Your task to perform on an android device: Clear the shopping cart on walmart. Add "usb-a" to the cart on walmart, then select checkout. Image 0: 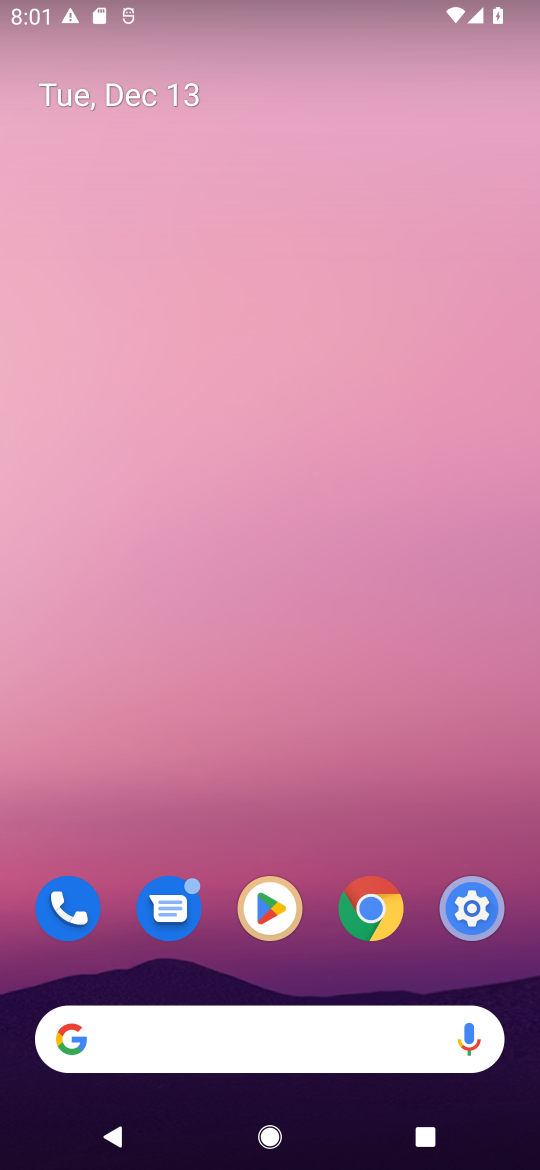
Step 0: press home button
Your task to perform on an android device: Clear the shopping cart on walmart. Add "usb-a" to the cart on walmart, then select checkout. Image 1: 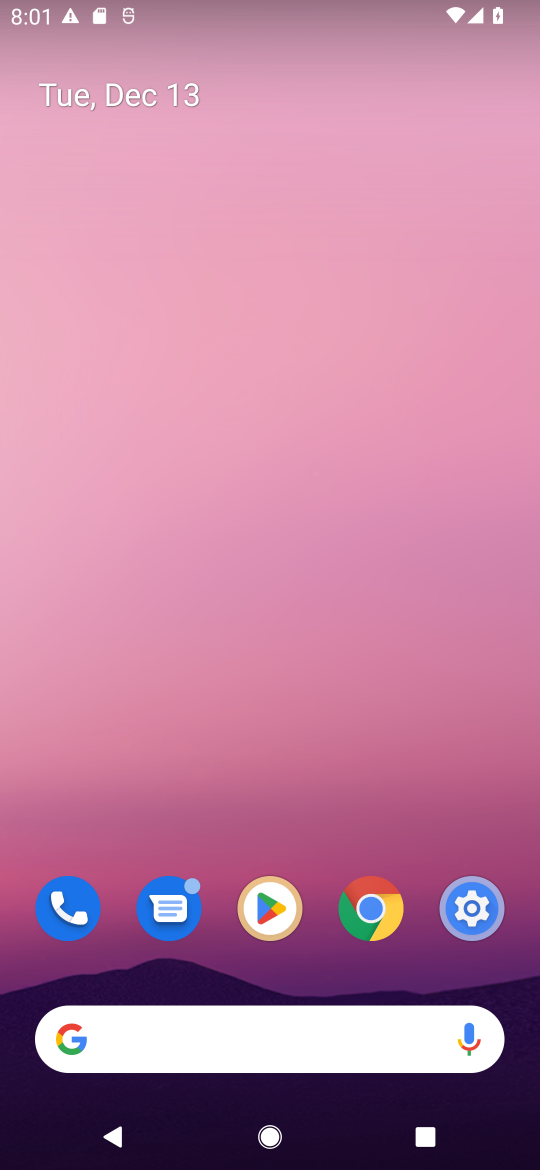
Step 1: click (107, 1026)
Your task to perform on an android device: Clear the shopping cart on walmart. Add "usb-a" to the cart on walmart, then select checkout. Image 2: 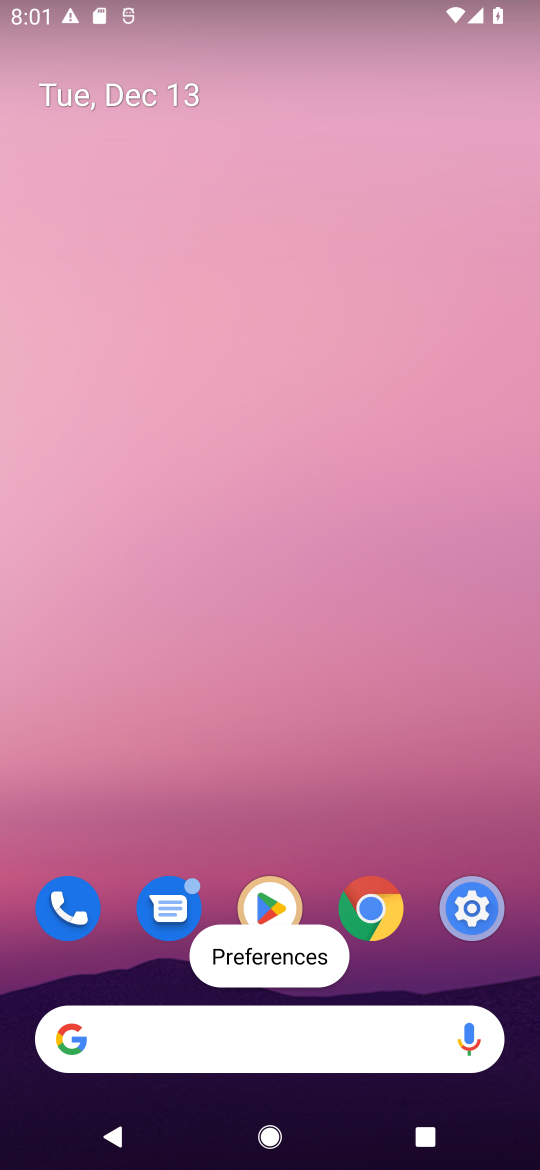
Step 2: click (119, 1027)
Your task to perform on an android device: Clear the shopping cart on walmart. Add "usb-a" to the cart on walmart, then select checkout. Image 3: 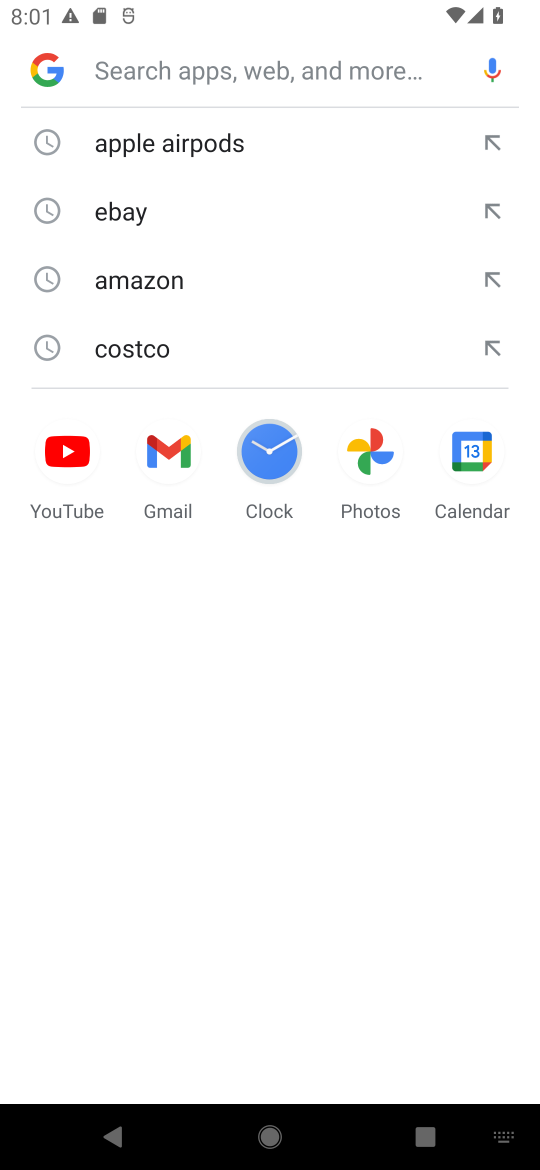
Step 3: type "walmart"
Your task to perform on an android device: Clear the shopping cart on walmart. Add "usb-a" to the cart on walmart, then select checkout. Image 4: 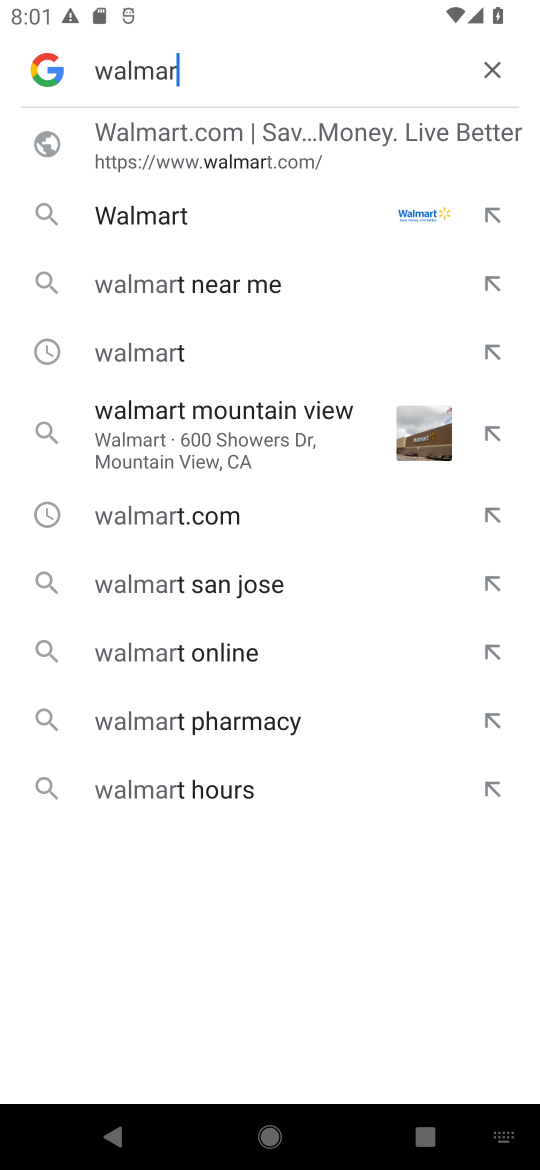
Step 4: press enter
Your task to perform on an android device: Clear the shopping cart on walmart. Add "usb-a" to the cart on walmart, then select checkout. Image 5: 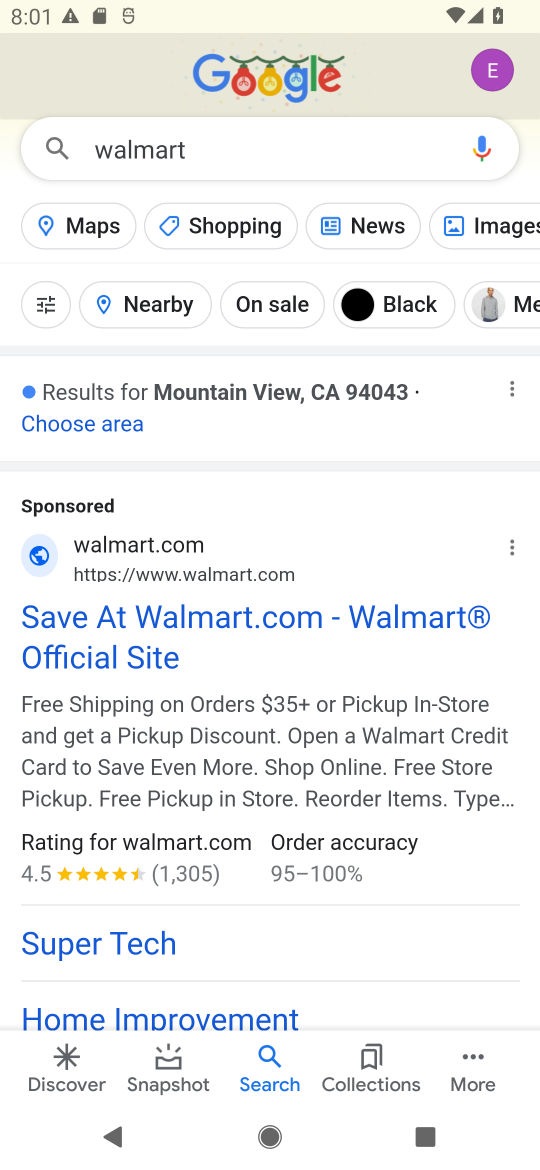
Step 5: click (97, 628)
Your task to perform on an android device: Clear the shopping cart on walmart. Add "usb-a" to the cart on walmart, then select checkout. Image 6: 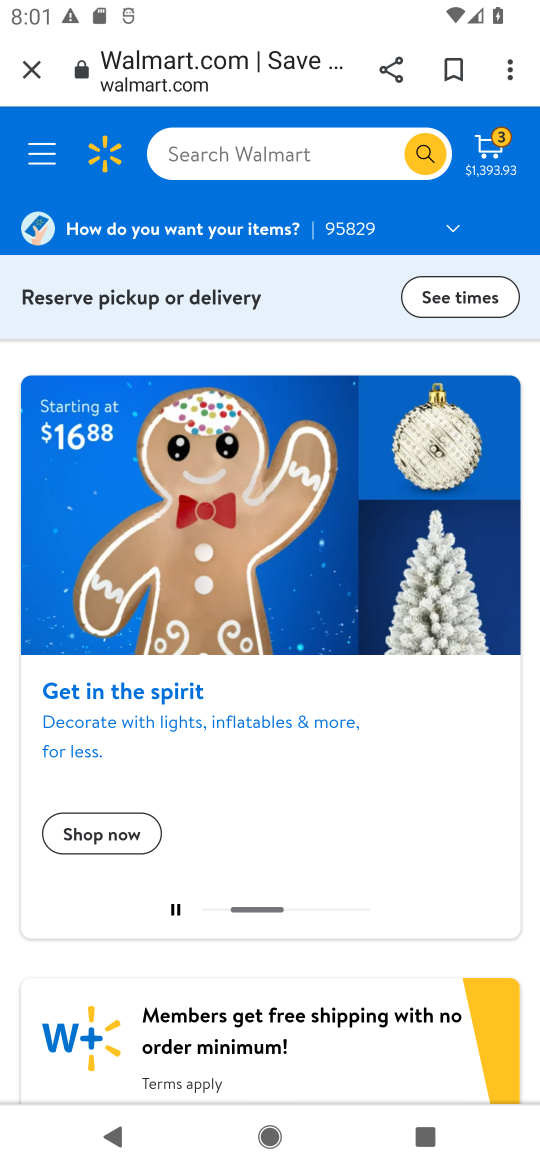
Step 6: click (482, 142)
Your task to perform on an android device: Clear the shopping cart on walmart. Add "usb-a" to the cart on walmart, then select checkout. Image 7: 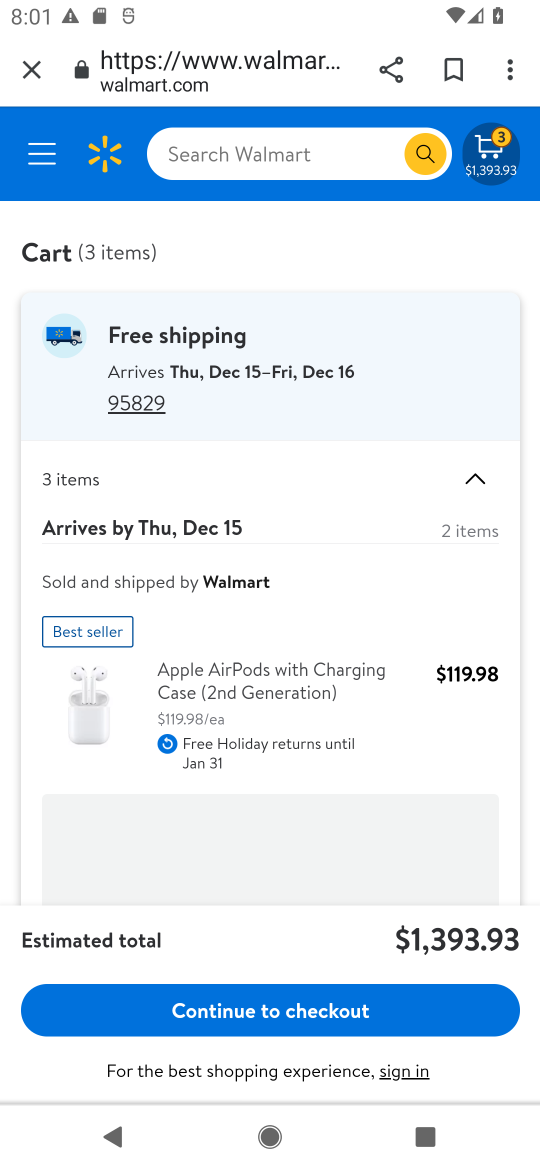
Step 7: drag from (302, 824) to (356, 353)
Your task to perform on an android device: Clear the shopping cart on walmart. Add "usb-a" to the cart on walmart, then select checkout. Image 8: 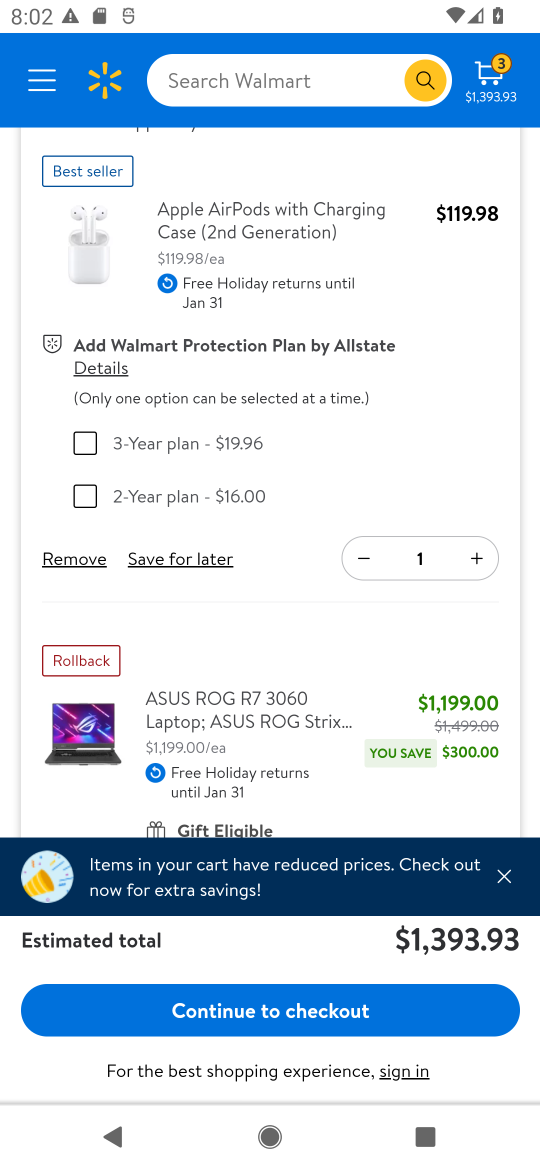
Step 8: click (54, 559)
Your task to perform on an android device: Clear the shopping cart on walmart. Add "usb-a" to the cart on walmart, then select checkout. Image 9: 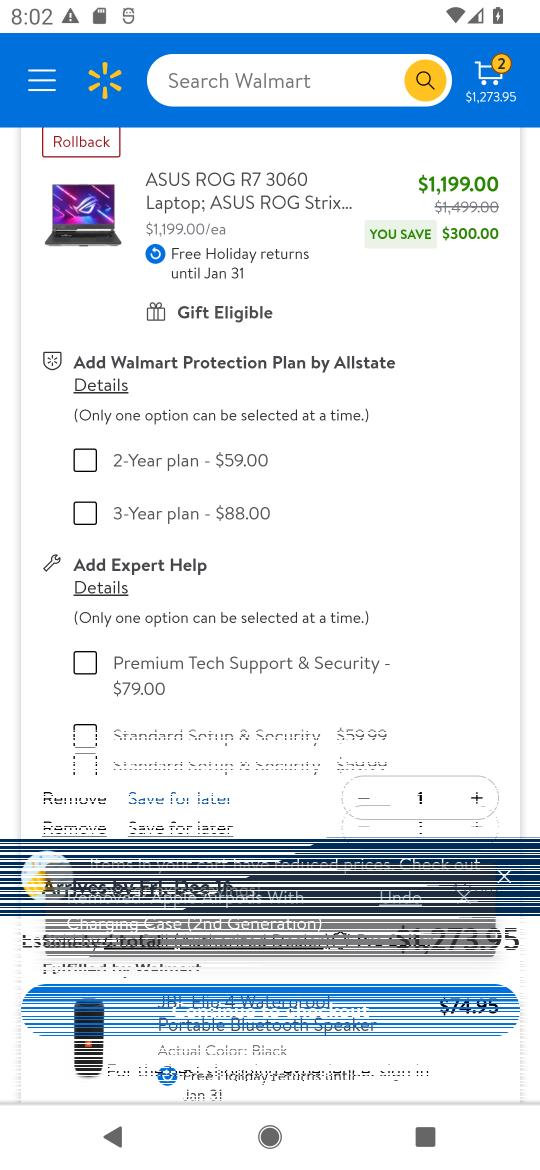
Step 9: drag from (178, 645) to (208, 258)
Your task to perform on an android device: Clear the shopping cart on walmart. Add "usb-a" to the cart on walmart, then select checkout. Image 10: 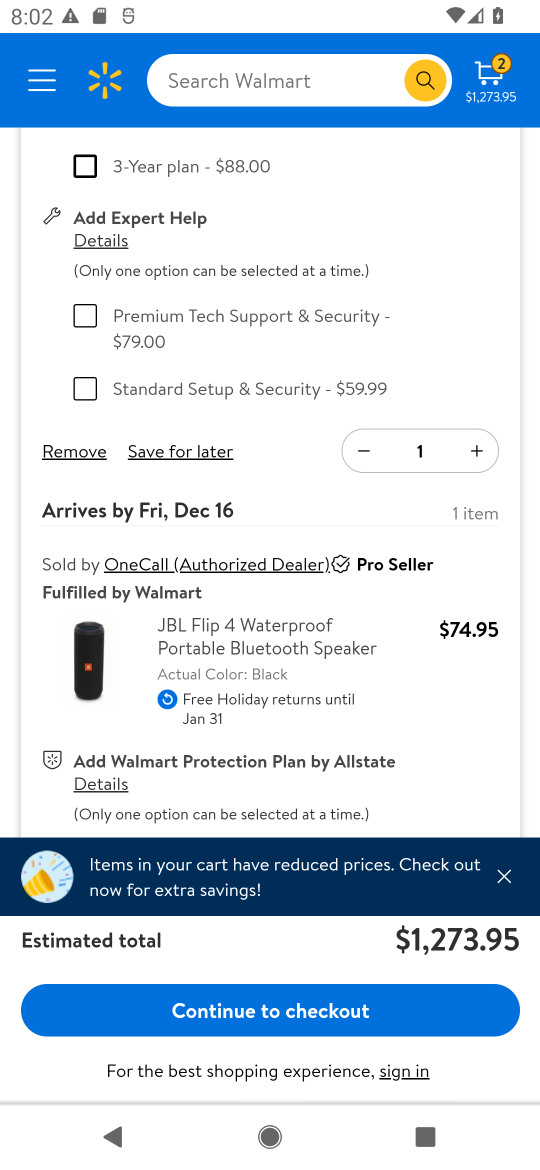
Step 10: click (64, 448)
Your task to perform on an android device: Clear the shopping cart on walmart. Add "usb-a" to the cart on walmart, then select checkout. Image 11: 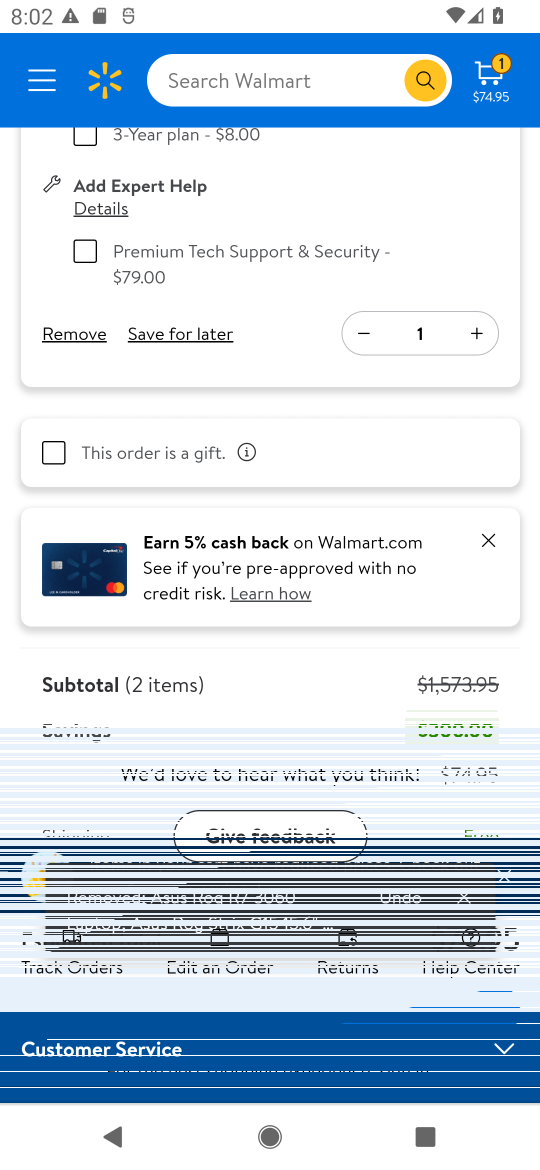
Step 11: click (68, 333)
Your task to perform on an android device: Clear the shopping cart on walmart. Add "usb-a" to the cart on walmart, then select checkout. Image 12: 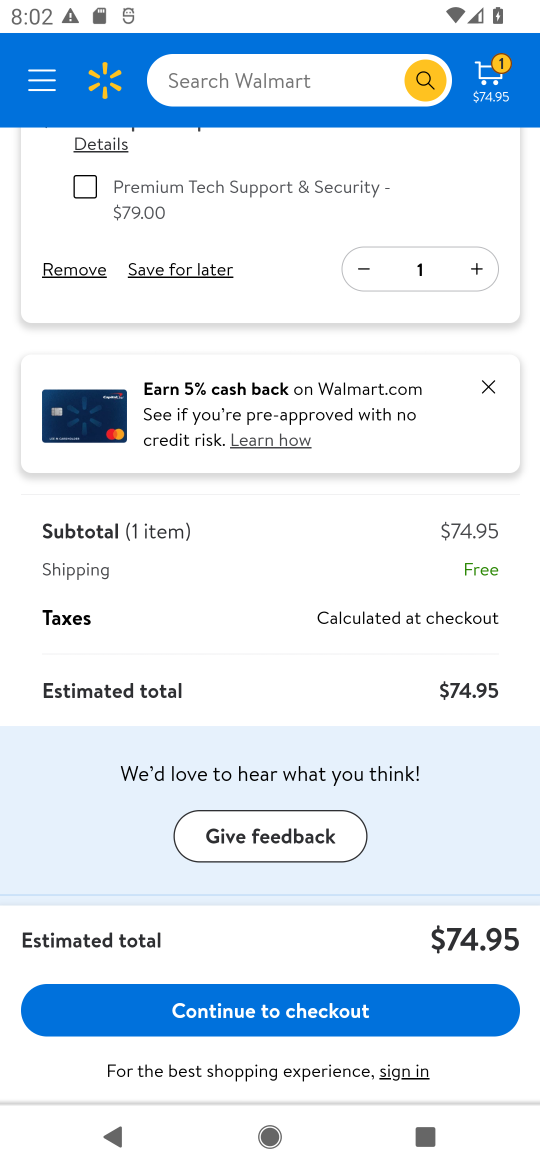
Step 12: click (65, 269)
Your task to perform on an android device: Clear the shopping cart on walmart. Add "usb-a" to the cart on walmart, then select checkout. Image 13: 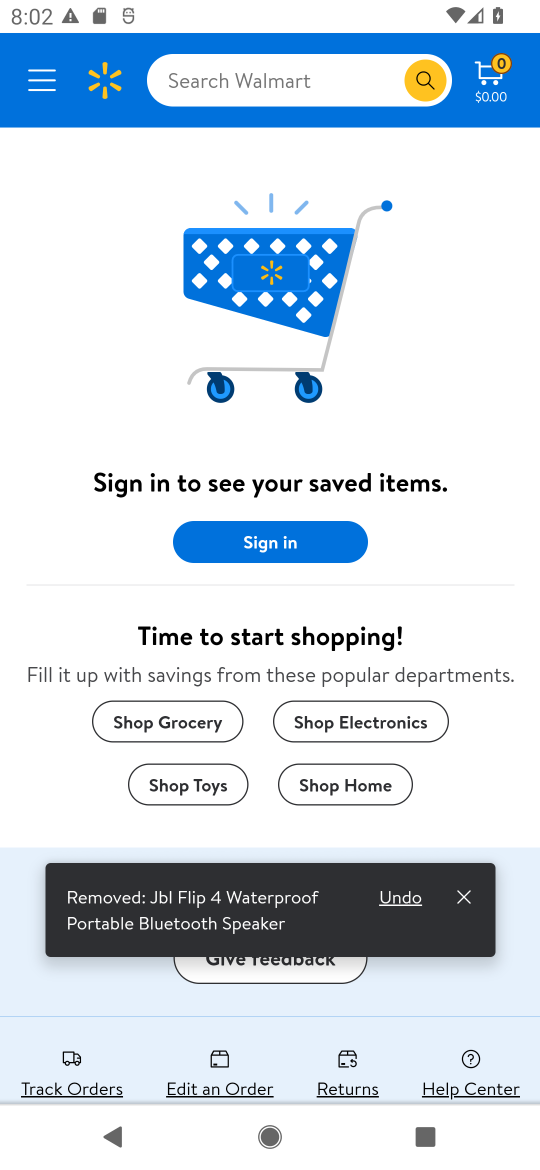
Step 13: click (190, 81)
Your task to perform on an android device: Clear the shopping cart on walmart. Add "usb-a" to the cart on walmart, then select checkout. Image 14: 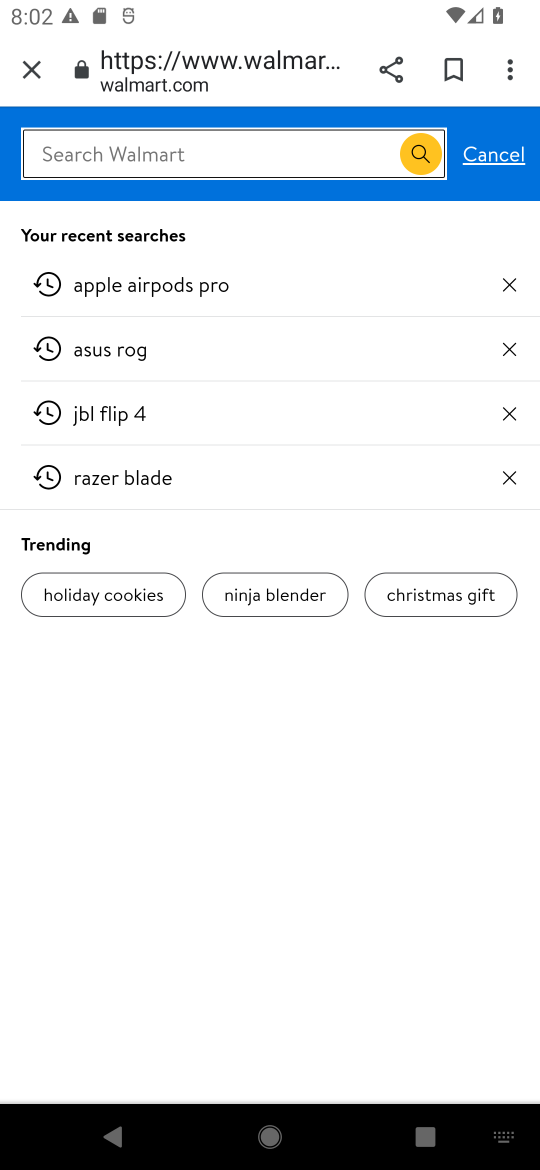
Step 14: type "usb-a"
Your task to perform on an android device: Clear the shopping cart on walmart. Add "usb-a" to the cart on walmart, then select checkout. Image 15: 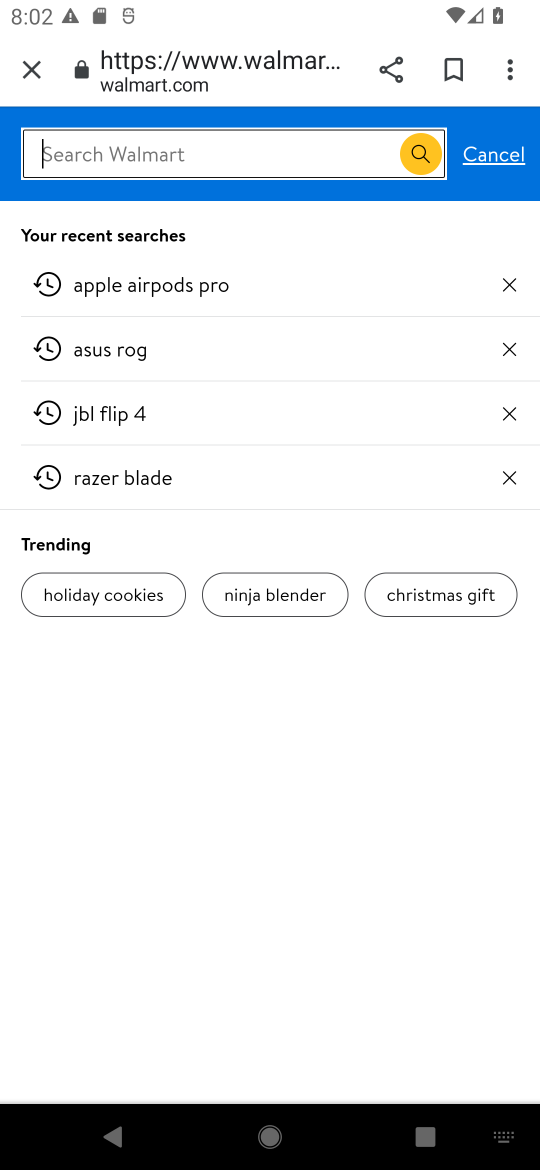
Step 15: press enter
Your task to perform on an android device: Clear the shopping cart on walmart. Add "usb-a" to the cart on walmart, then select checkout. Image 16: 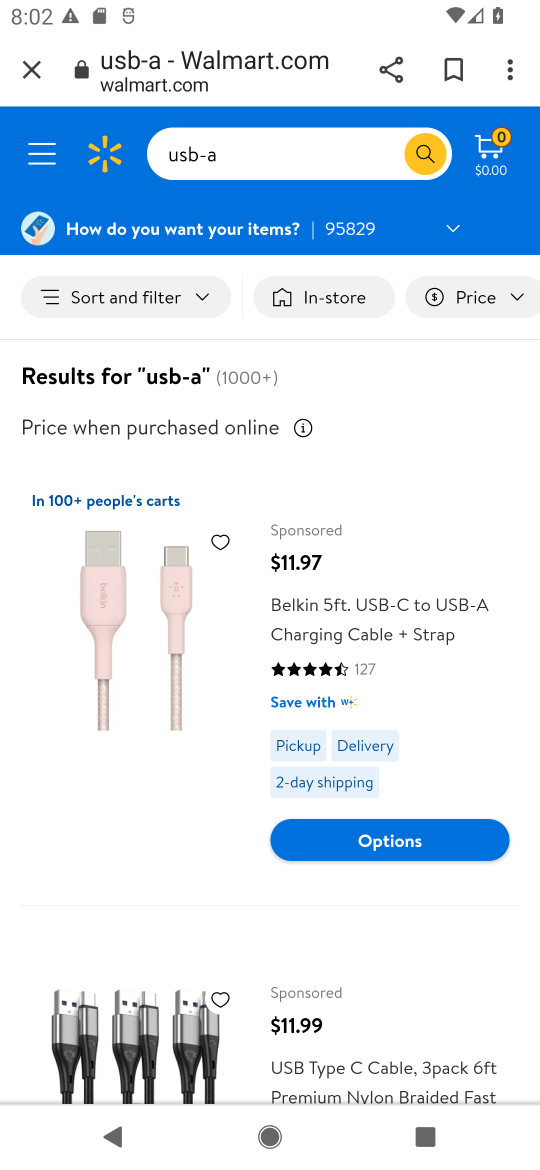
Step 16: click (359, 628)
Your task to perform on an android device: Clear the shopping cart on walmart. Add "usb-a" to the cart on walmart, then select checkout. Image 17: 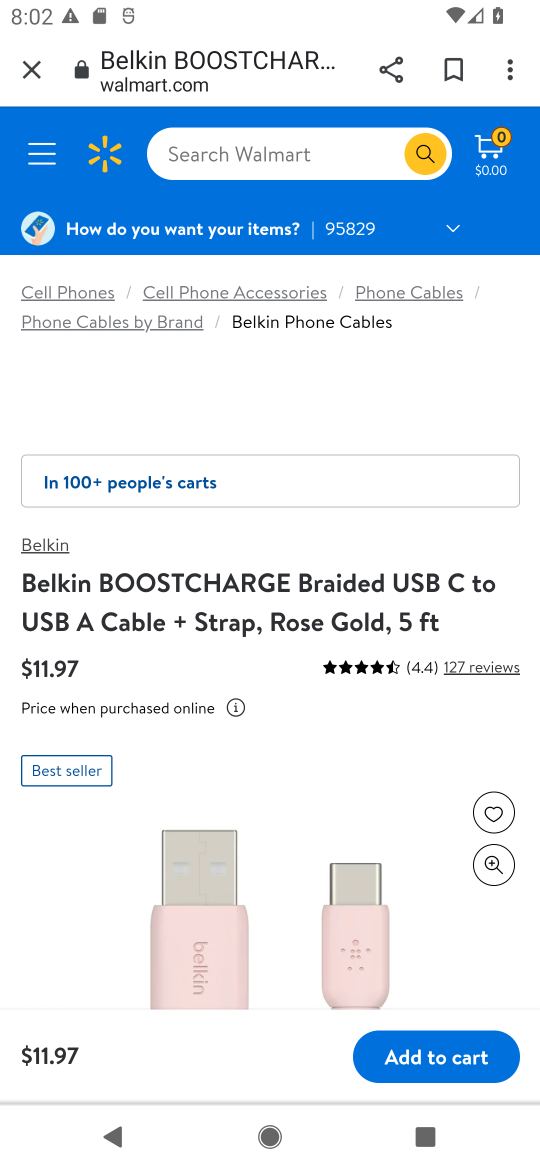
Step 17: click (430, 1054)
Your task to perform on an android device: Clear the shopping cart on walmart. Add "usb-a" to the cart on walmart, then select checkout. Image 18: 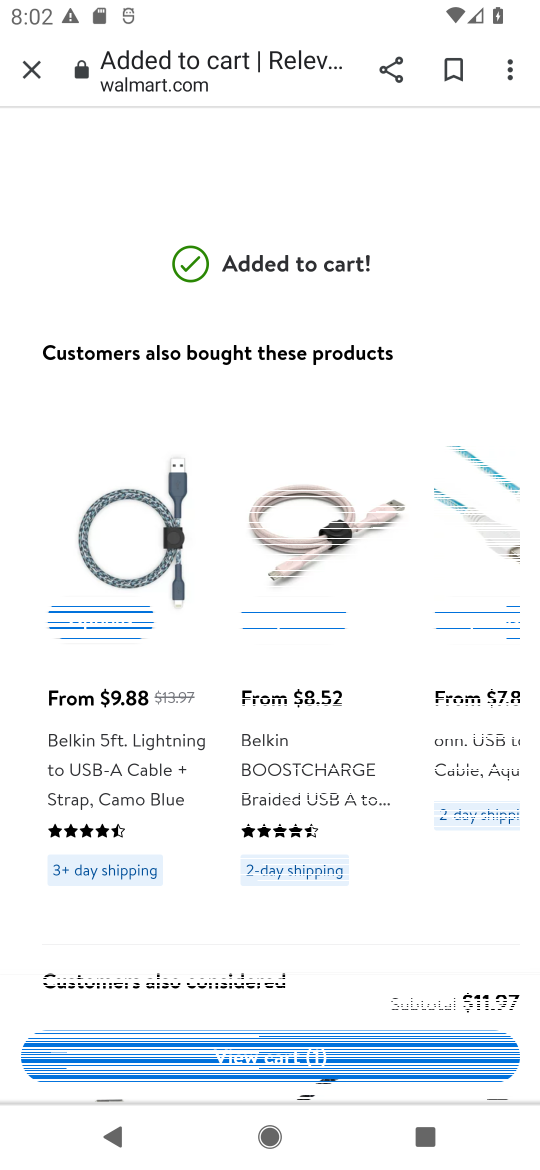
Step 18: drag from (358, 826) to (386, 402)
Your task to perform on an android device: Clear the shopping cart on walmart. Add "usb-a" to the cart on walmart, then select checkout. Image 19: 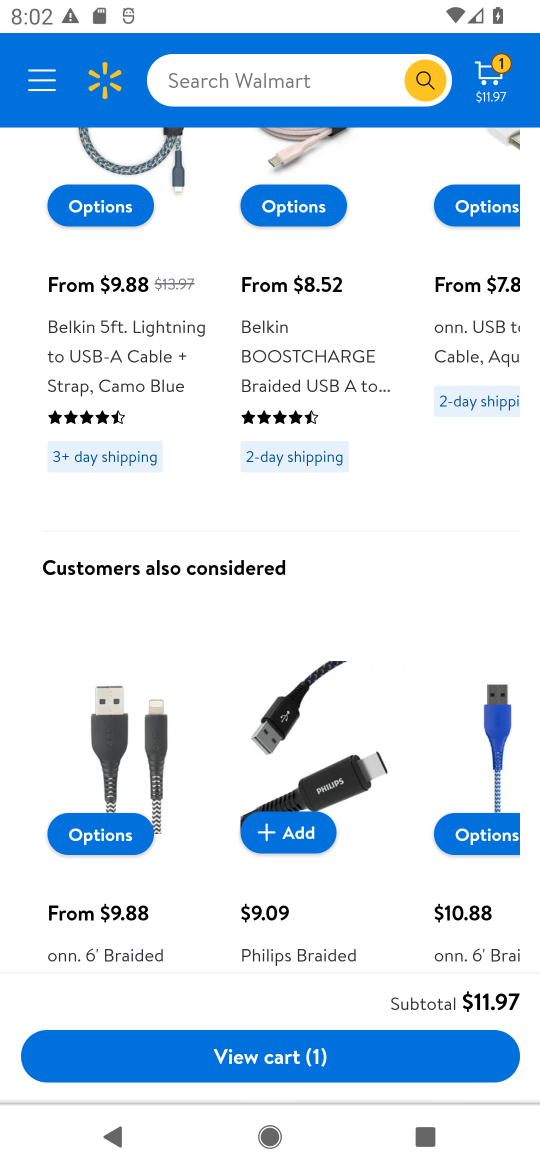
Step 19: click (247, 1063)
Your task to perform on an android device: Clear the shopping cart on walmart. Add "usb-a" to the cart on walmart, then select checkout. Image 20: 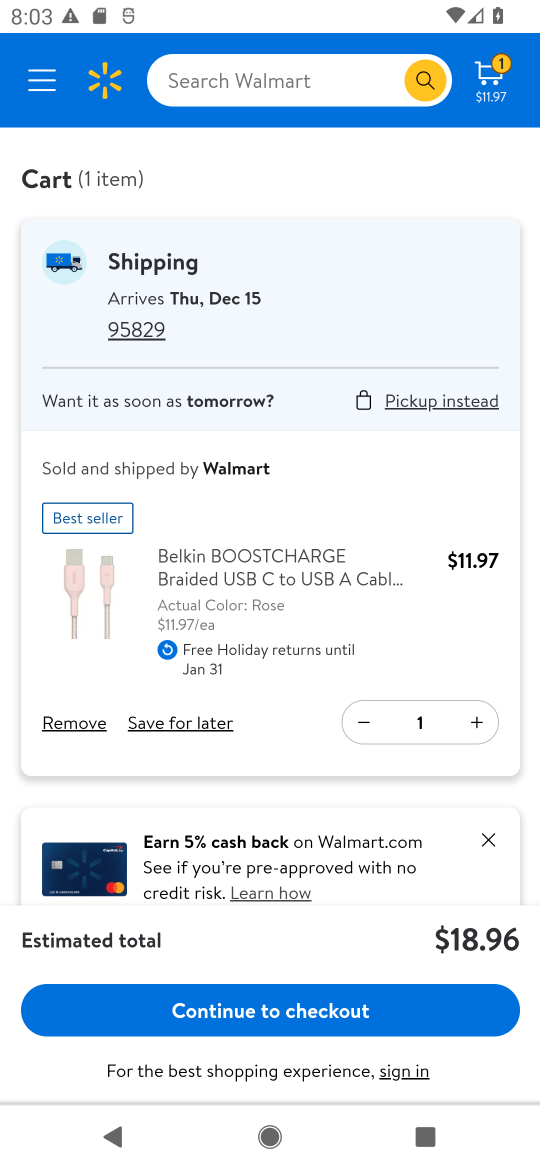
Step 20: click (197, 1014)
Your task to perform on an android device: Clear the shopping cart on walmart. Add "usb-a" to the cart on walmart, then select checkout. Image 21: 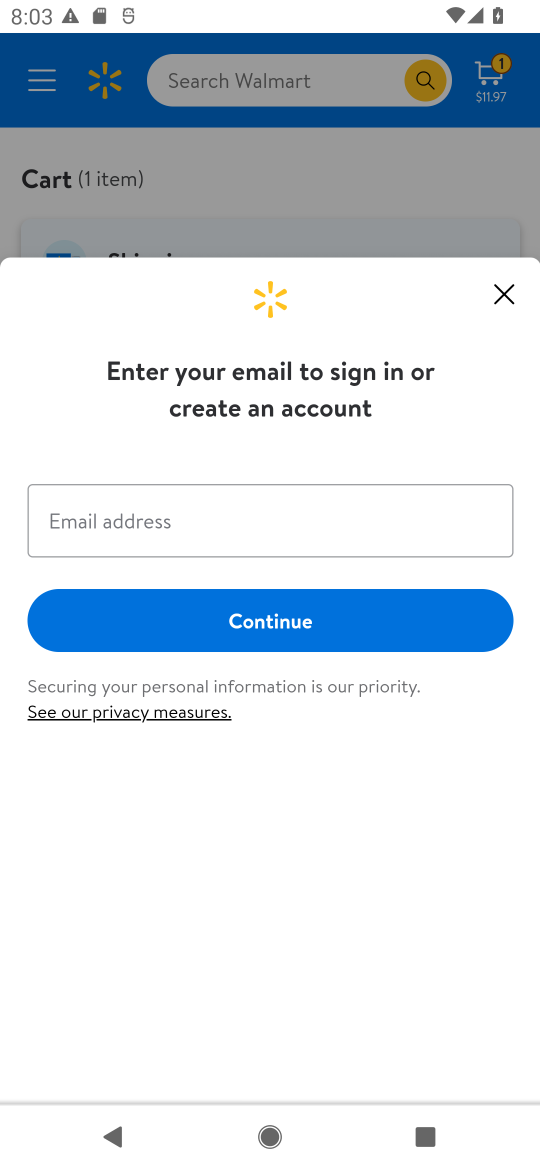
Step 21: task complete